Your task to perform on an android device: open app "Google Chat" (install if not already installed) Image 0: 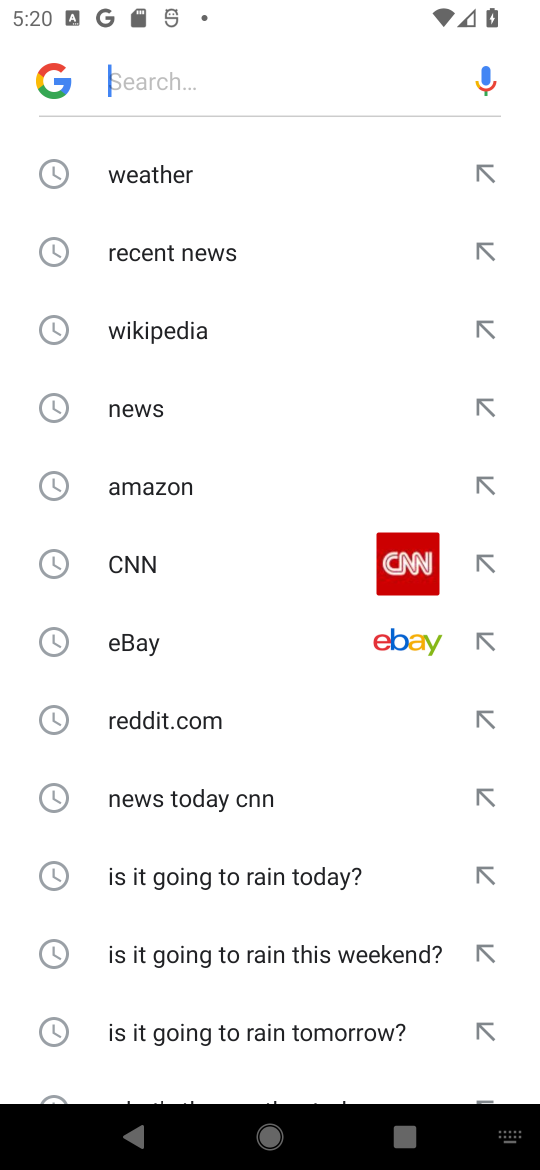
Step 0: press home button
Your task to perform on an android device: open app "Google Chat" (install if not already installed) Image 1: 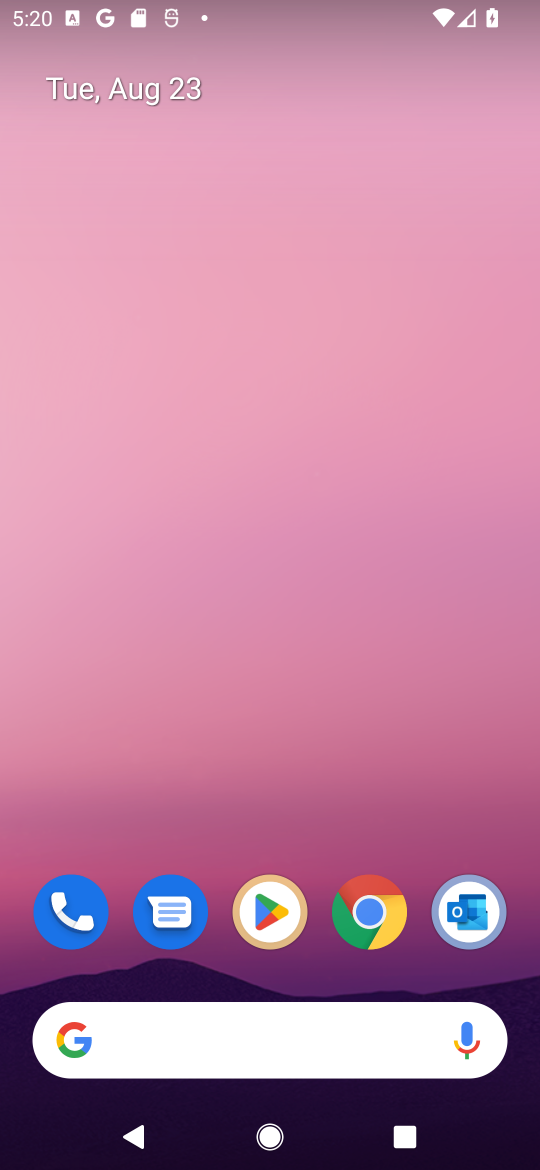
Step 1: click (276, 898)
Your task to perform on an android device: open app "Google Chat" (install if not already installed) Image 2: 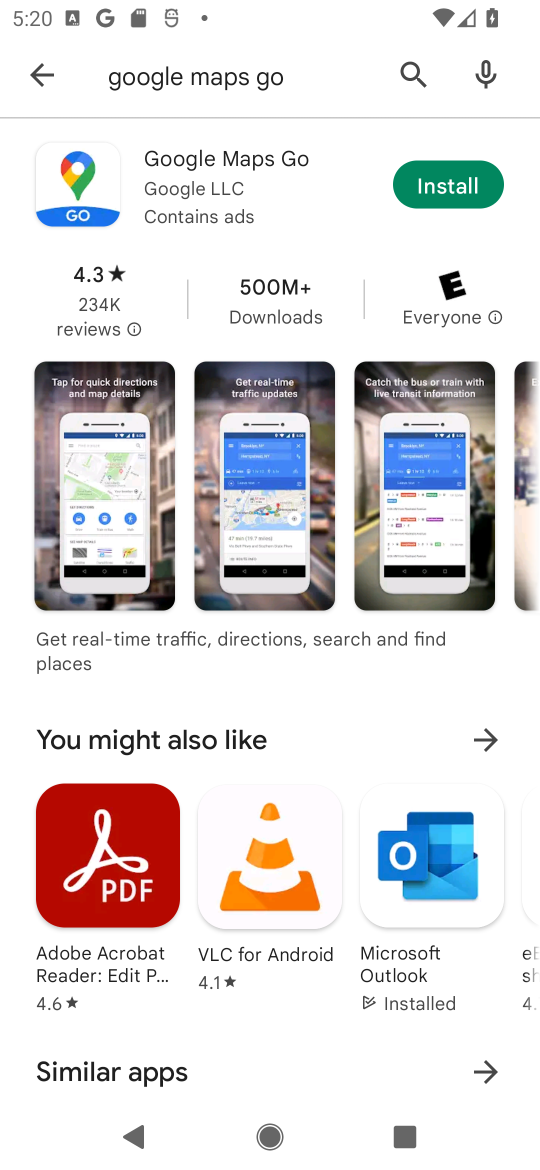
Step 2: click (50, 64)
Your task to perform on an android device: open app "Google Chat" (install if not already installed) Image 3: 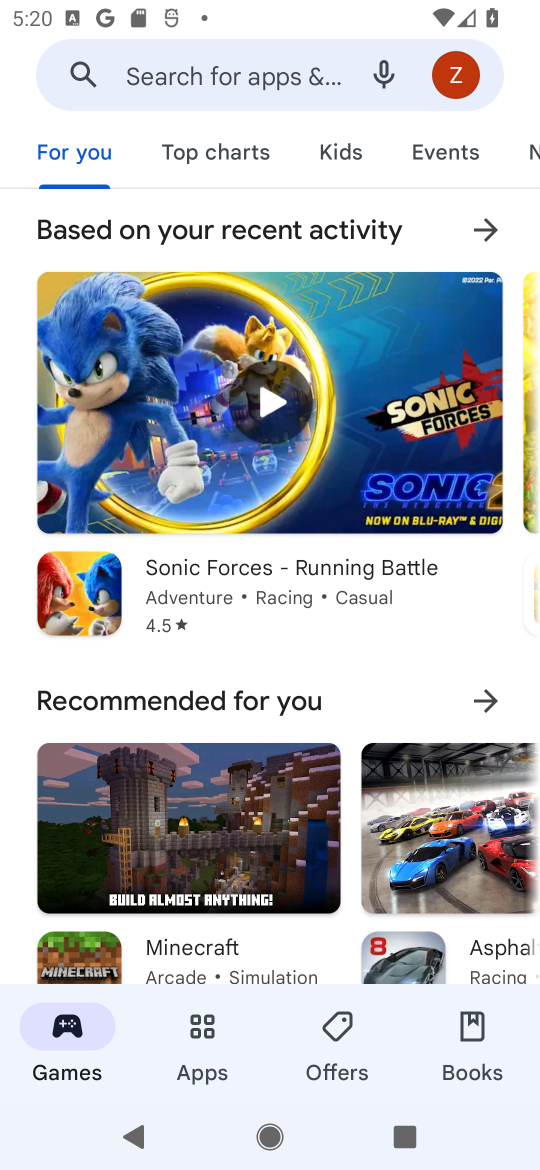
Step 3: click (161, 67)
Your task to perform on an android device: open app "Google Chat" (install if not already installed) Image 4: 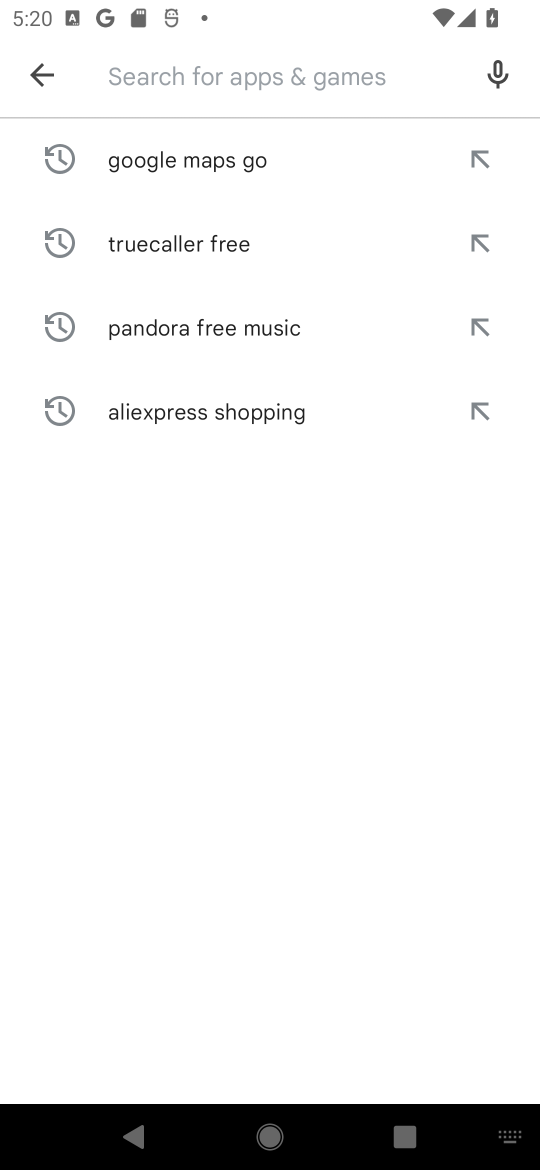
Step 4: type "google chat "
Your task to perform on an android device: open app "Google Chat" (install if not already installed) Image 5: 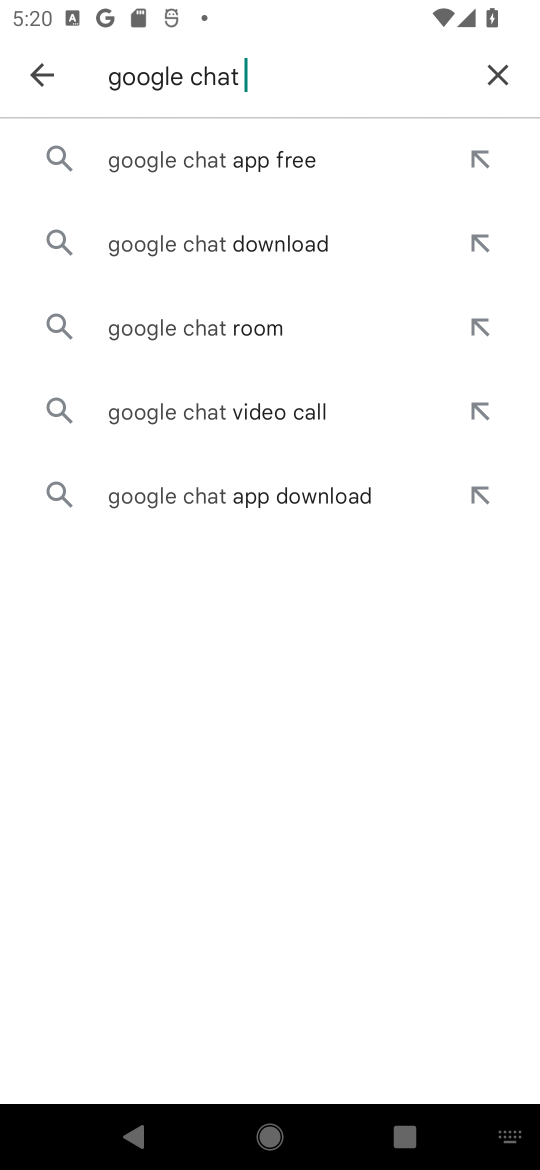
Step 5: click (261, 143)
Your task to perform on an android device: open app "Google Chat" (install if not already installed) Image 6: 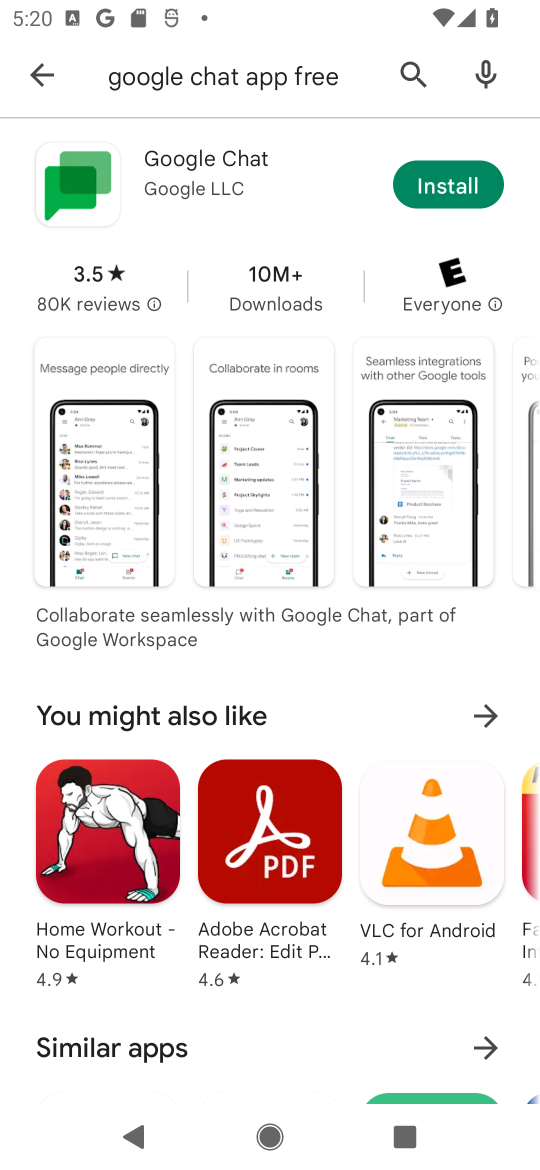
Step 6: click (433, 177)
Your task to perform on an android device: open app "Google Chat" (install if not already installed) Image 7: 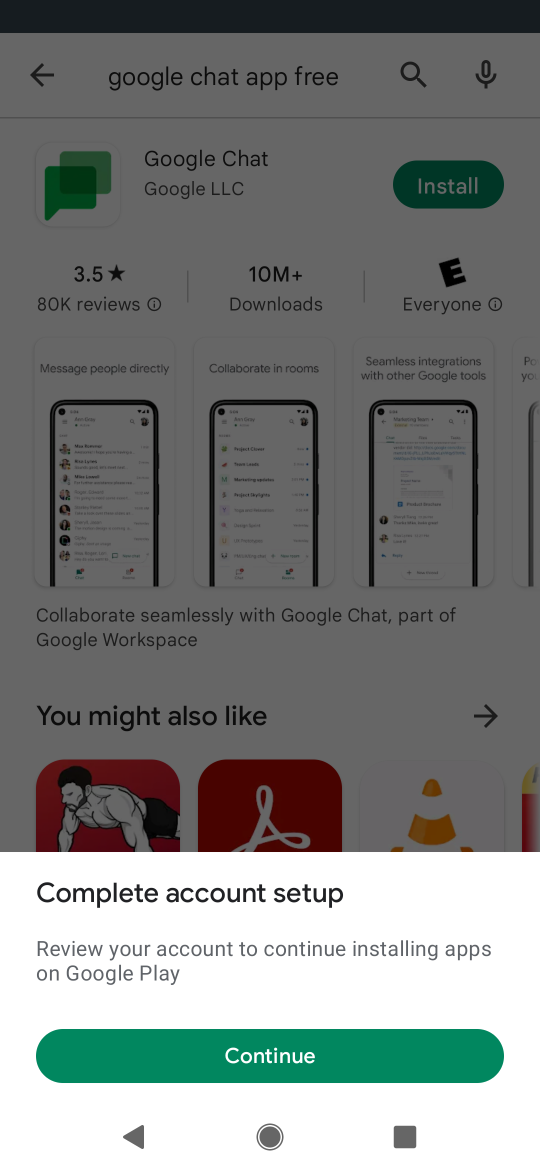
Step 7: task complete